Your task to perform on an android device: make emails show in primary in the gmail app Image 0: 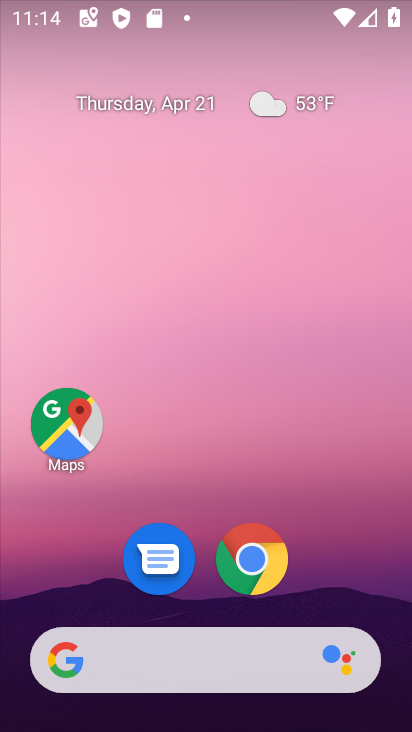
Step 0: drag from (372, 599) to (410, 345)
Your task to perform on an android device: make emails show in primary in the gmail app Image 1: 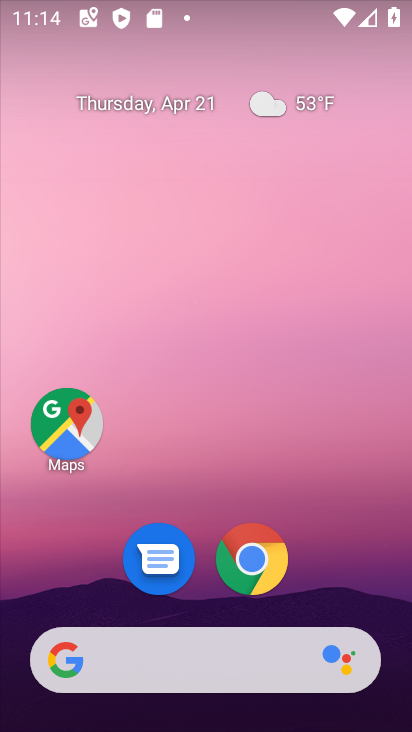
Step 1: drag from (348, 560) to (262, 12)
Your task to perform on an android device: make emails show in primary in the gmail app Image 2: 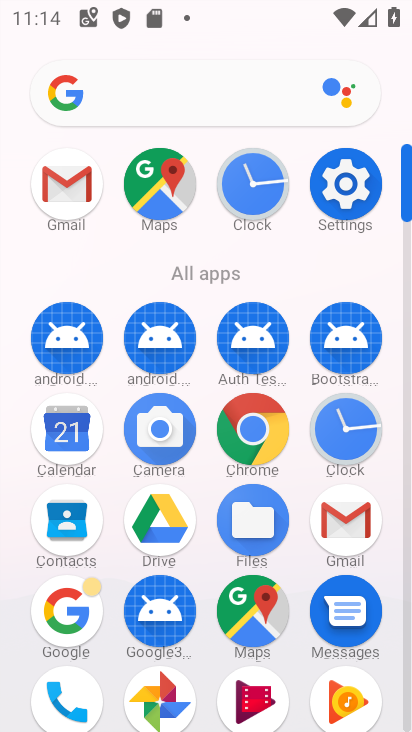
Step 2: click (63, 199)
Your task to perform on an android device: make emails show in primary in the gmail app Image 3: 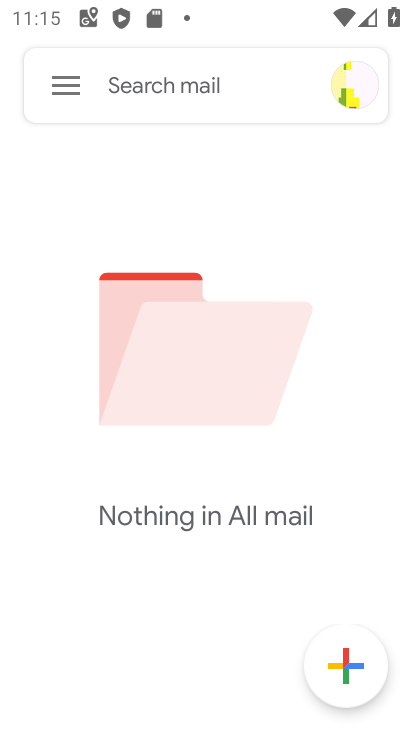
Step 3: click (70, 89)
Your task to perform on an android device: make emails show in primary in the gmail app Image 4: 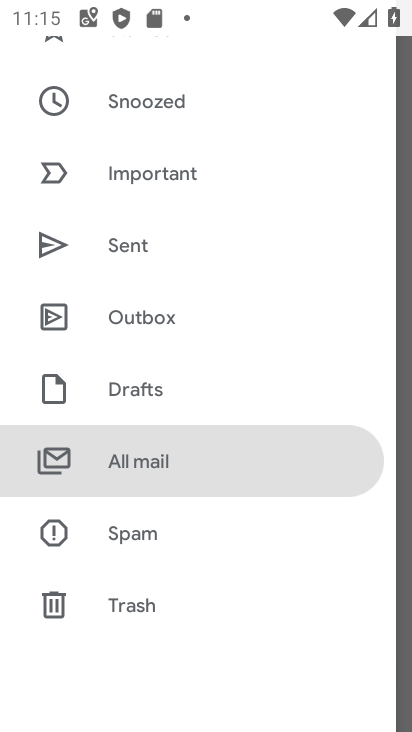
Step 4: drag from (230, 577) to (198, 87)
Your task to perform on an android device: make emails show in primary in the gmail app Image 5: 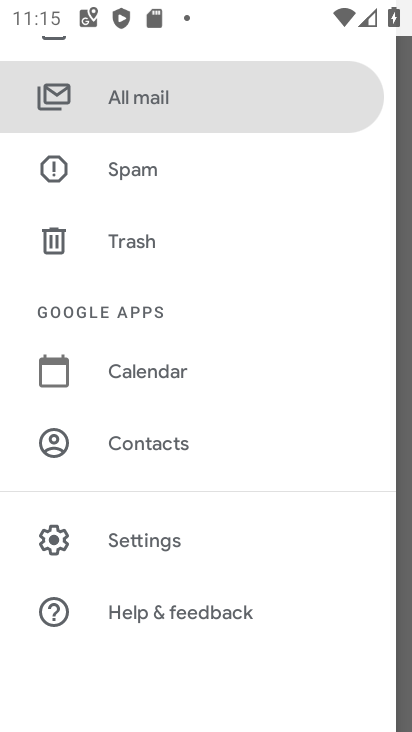
Step 5: click (158, 536)
Your task to perform on an android device: make emails show in primary in the gmail app Image 6: 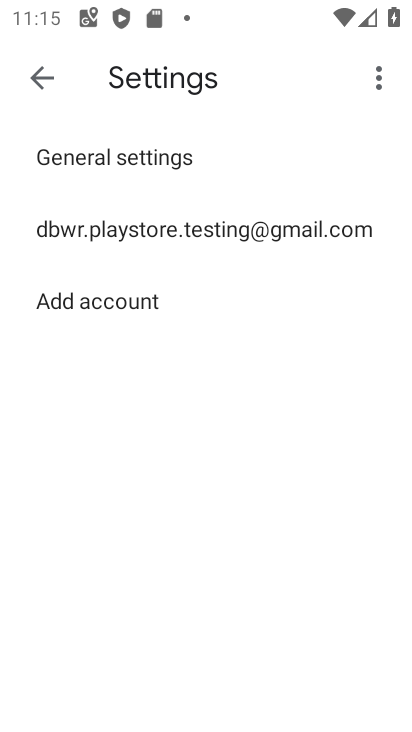
Step 6: click (93, 237)
Your task to perform on an android device: make emails show in primary in the gmail app Image 7: 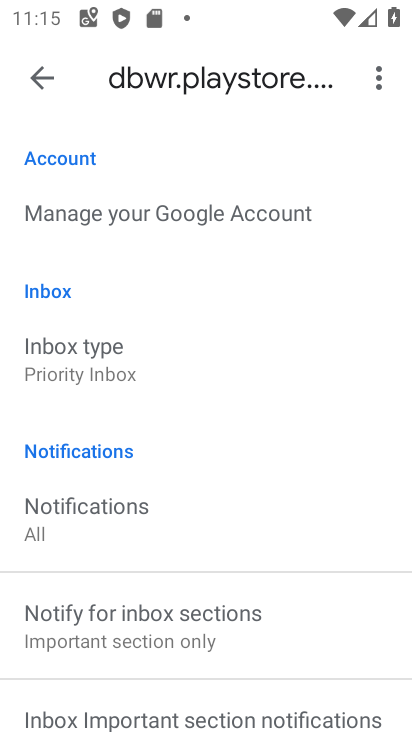
Step 7: task complete